Your task to perform on an android device: change timer sound Image 0: 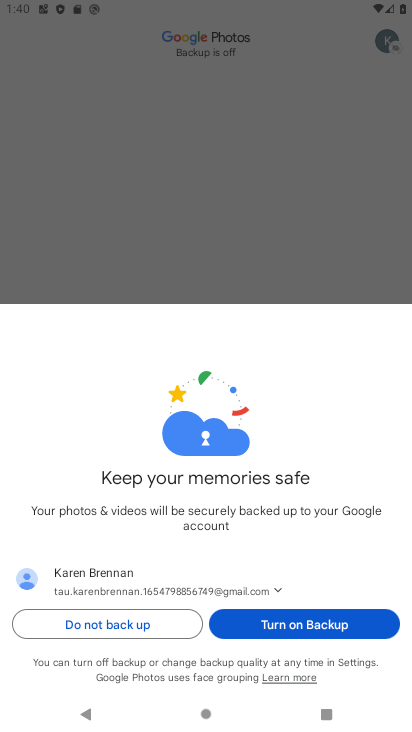
Step 0: press home button
Your task to perform on an android device: change timer sound Image 1: 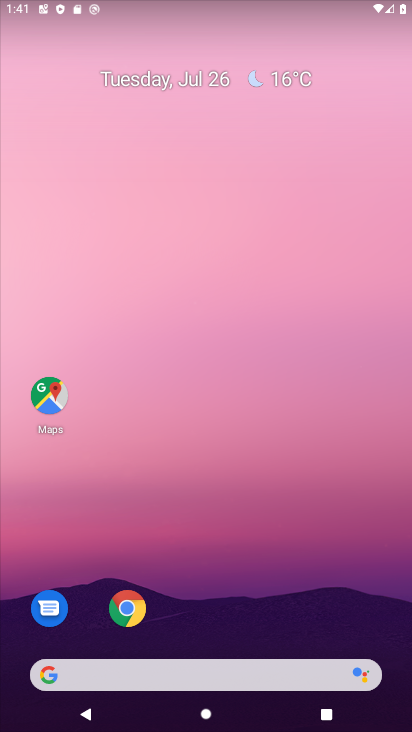
Step 1: drag from (318, 600) to (364, 61)
Your task to perform on an android device: change timer sound Image 2: 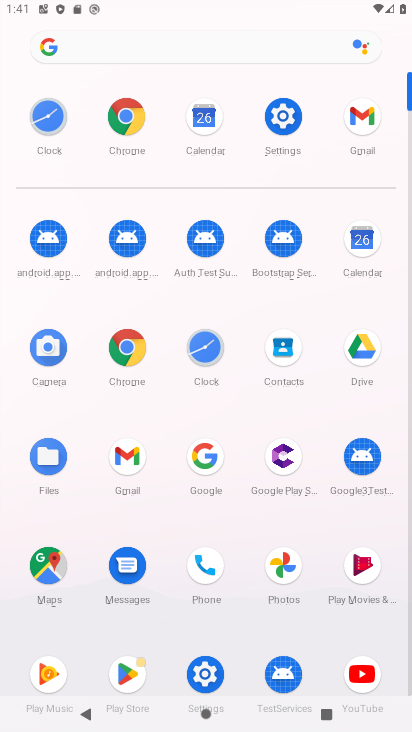
Step 2: click (203, 328)
Your task to perform on an android device: change timer sound Image 3: 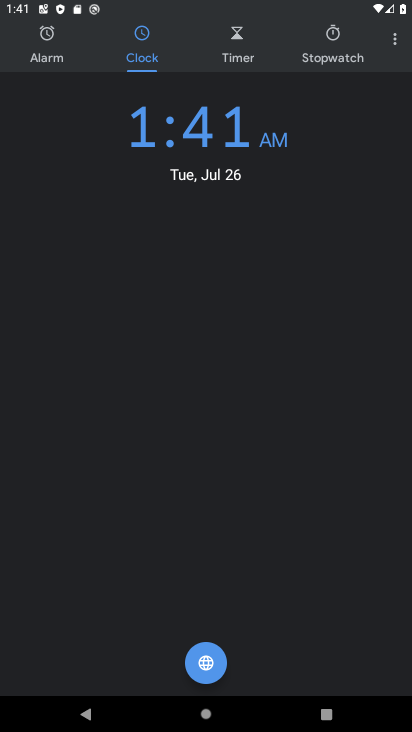
Step 3: click (226, 53)
Your task to perform on an android device: change timer sound Image 4: 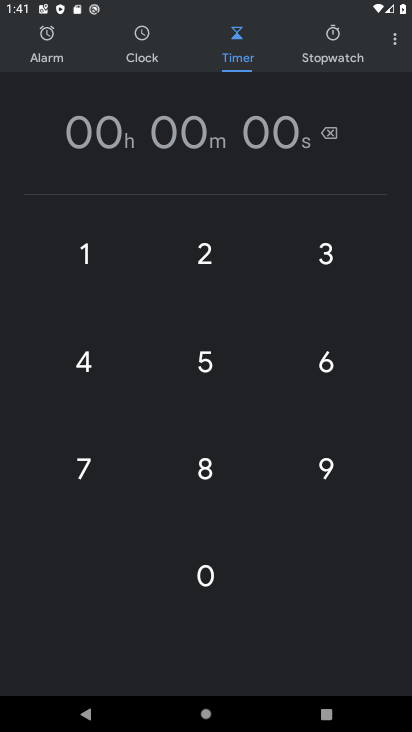
Step 4: task complete